Your task to perform on an android device: delete the emails in spam in the gmail app Image 0: 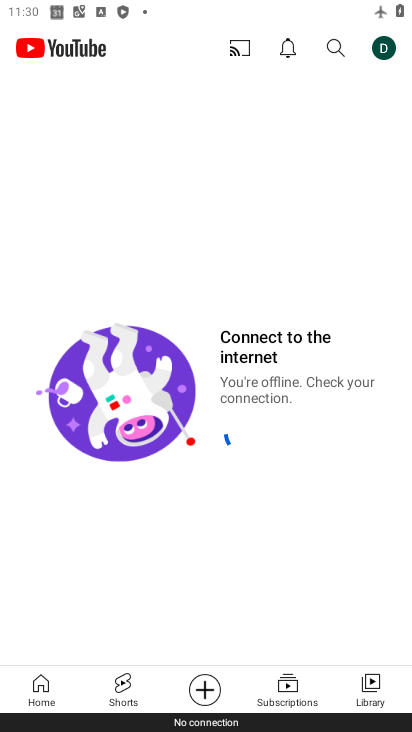
Step 0: press home button
Your task to perform on an android device: delete the emails in spam in the gmail app Image 1: 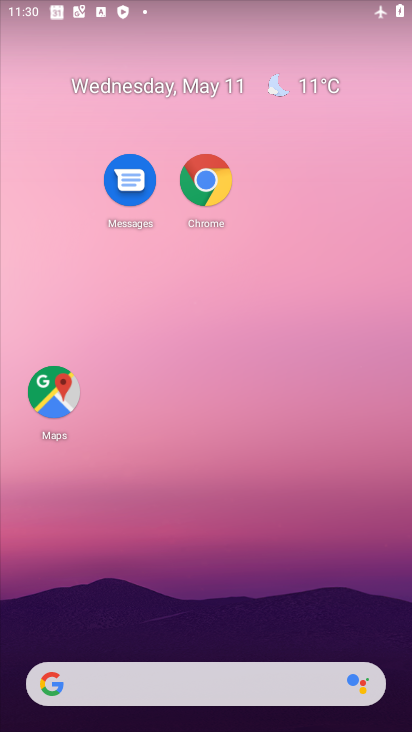
Step 1: drag from (319, 443) to (310, 91)
Your task to perform on an android device: delete the emails in spam in the gmail app Image 2: 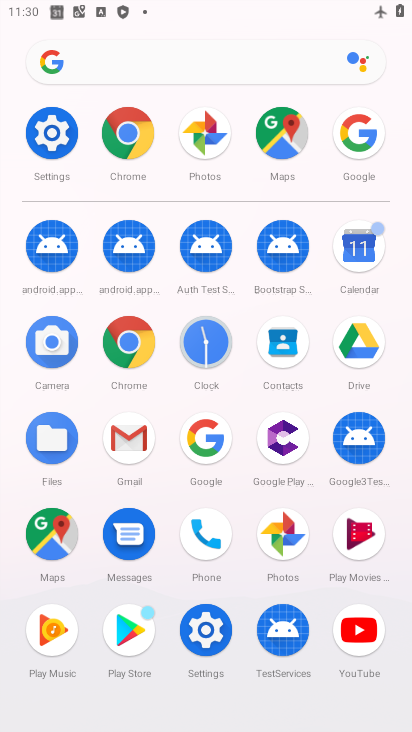
Step 2: click (119, 450)
Your task to perform on an android device: delete the emails in spam in the gmail app Image 3: 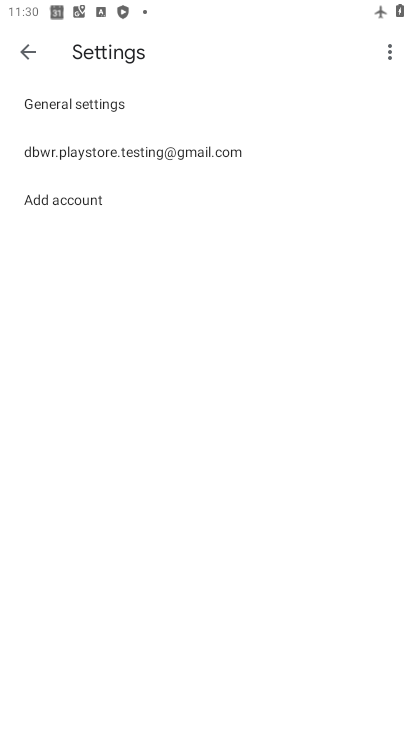
Step 3: press back button
Your task to perform on an android device: delete the emails in spam in the gmail app Image 4: 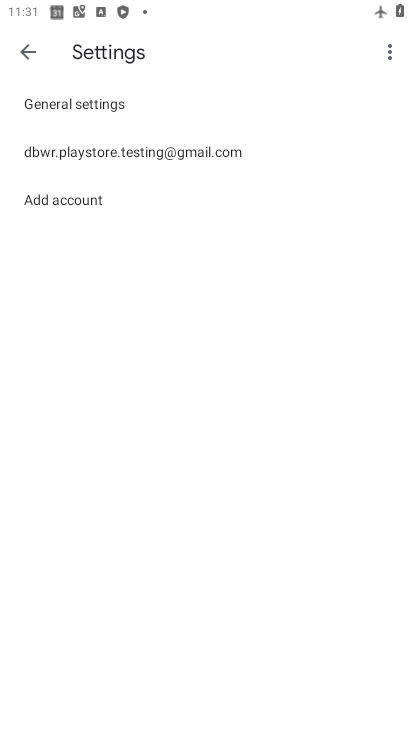
Step 4: press back button
Your task to perform on an android device: delete the emails in spam in the gmail app Image 5: 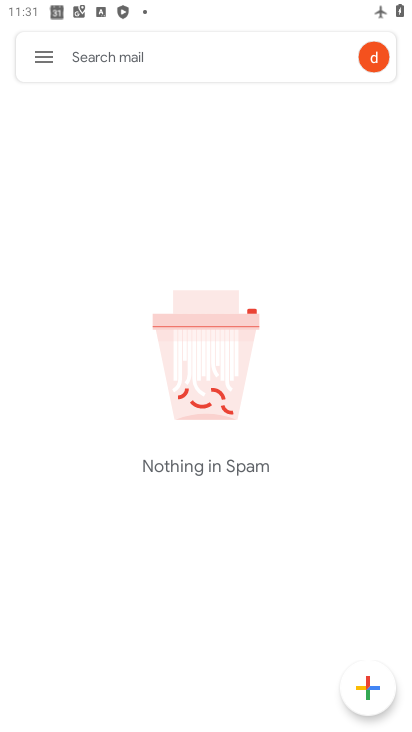
Step 5: click (59, 92)
Your task to perform on an android device: delete the emails in spam in the gmail app Image 6: 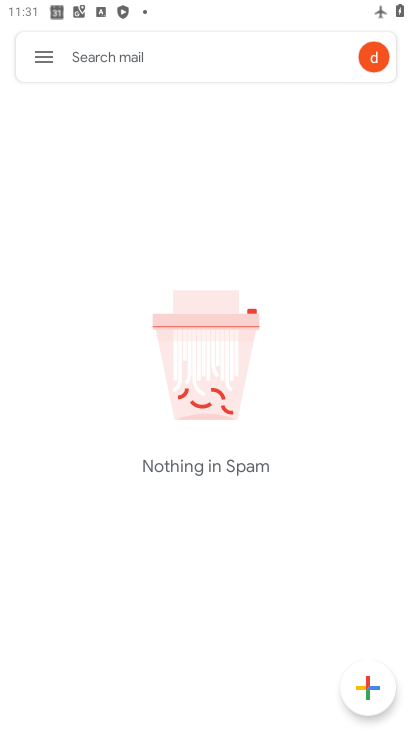
Step 6: click (28, 69)
Your task to perform on an android device: delete the emails in spam in the gmail app Image 7: 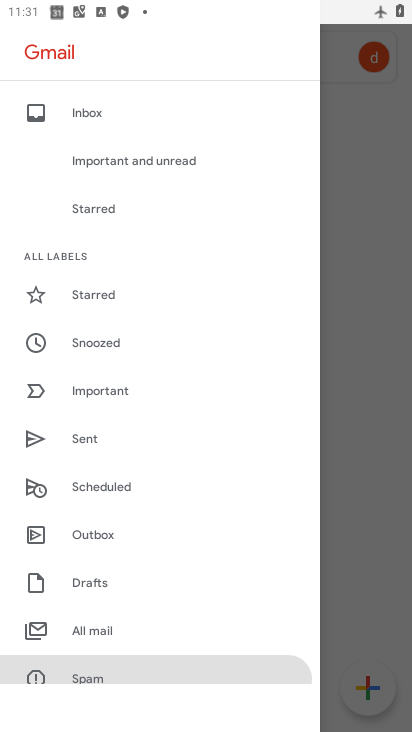
Step 7: drag from (118, 643) to (128, 438)
Your task to perform on an android device: delete the emails in spam in the gmail app Image 8: 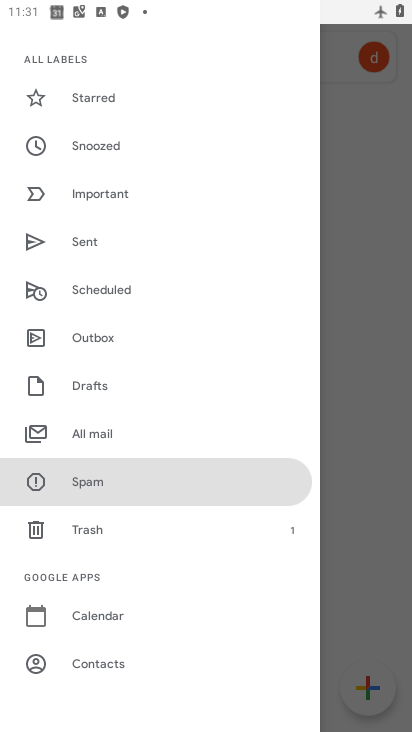
Step 8: click (103, 490)
Your task to perform on an android device: delete the emails in spam in the gmail app Image 9: 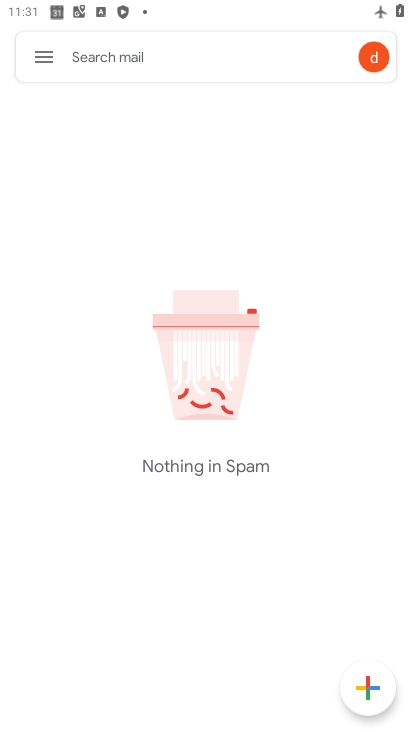
Step 9: task complete